Your task to perform on an android device: change notifications settings Image 0: 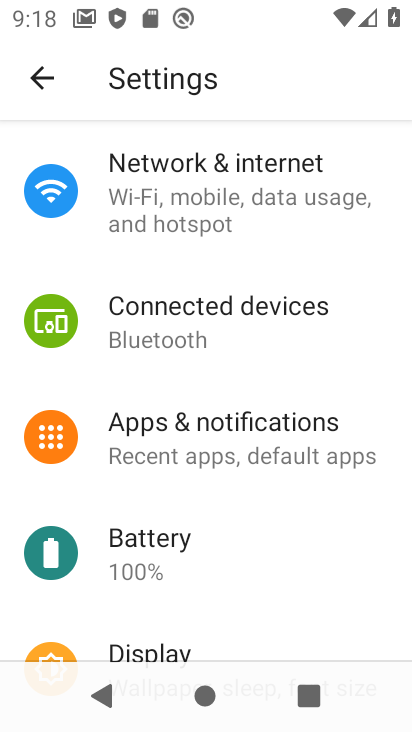
Step 0: press home button
Your task to perform on an android device: change notifications settings Image 1: 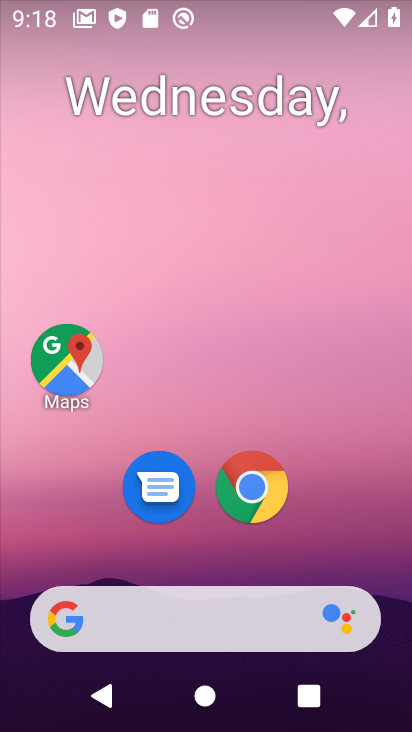
Step 1: drag from (172, 601) to (264, 98)
Your task to perform on an android device: change notifications settings Image 2: 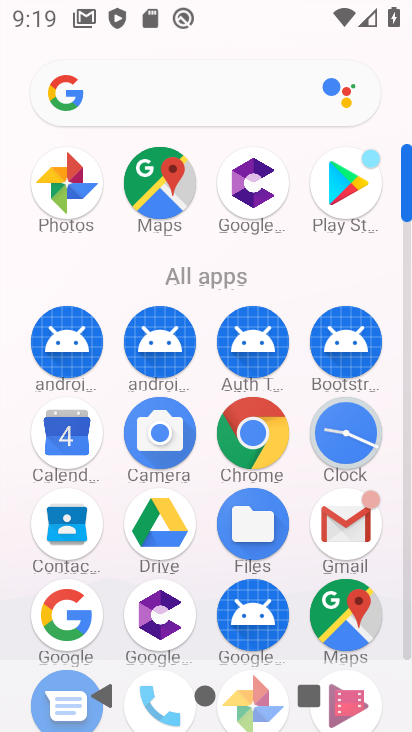
Step 2: drag from (204, 573) to (303, 190)
Your task to perform on an android device: change notifications settings Image 3: 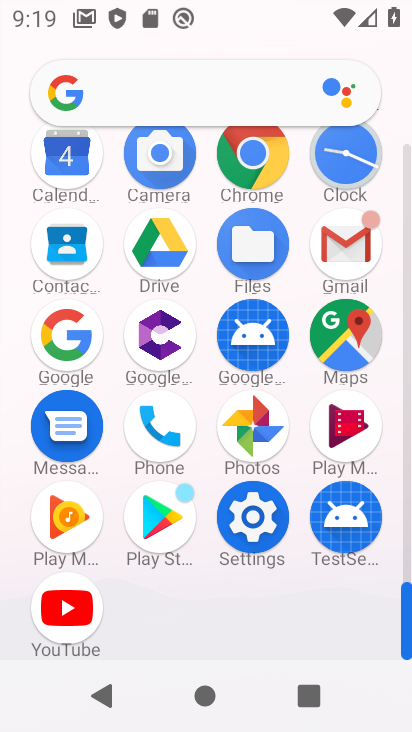
Step 3: click (254, 528)
Your task to perform on an android device: change notifications settings Image 4: 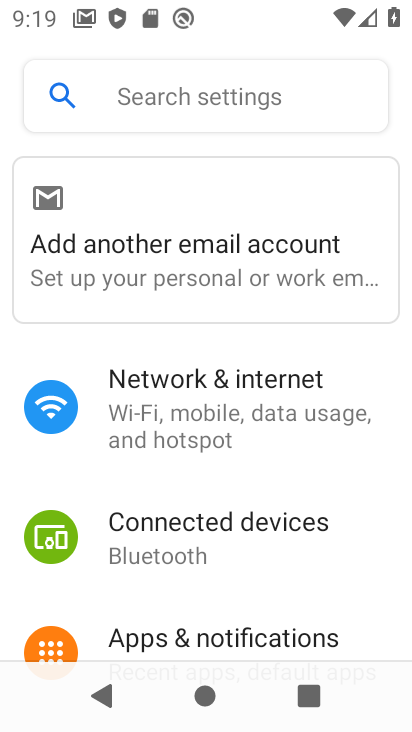
Step 4: drag from (225, 599) to (270, 343)
Your task to perform on an android device: change notifications settings Image 5: 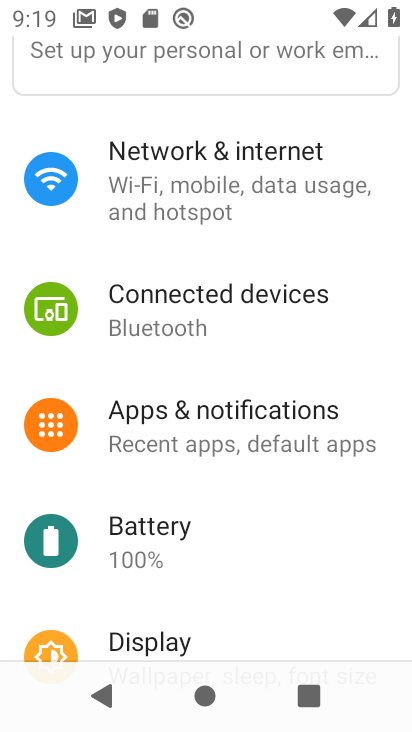
Step 5: click (239, 425)
Your task to perform on an android device: change notifications settings Image 6: 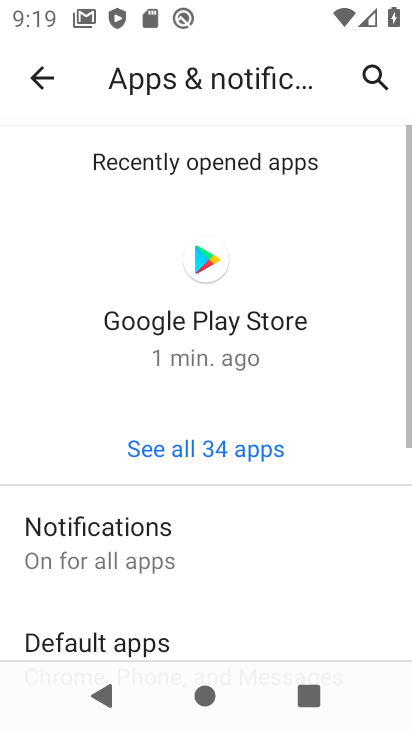
Step 6: click (133, 532)
Your task to perform on an android device: change notifications settings Image 7: 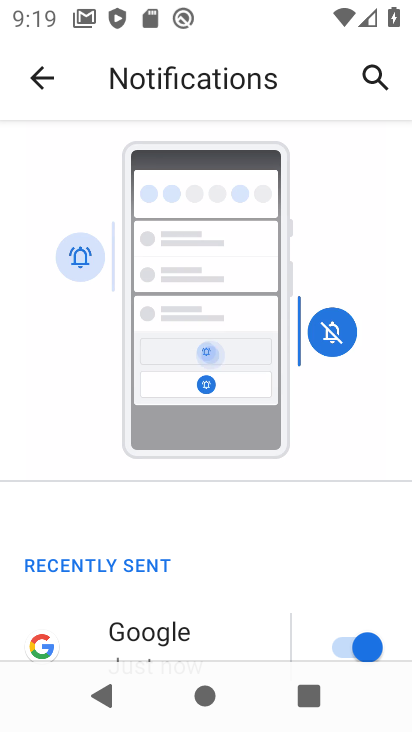
Step 7: drag from (242, 579) to (376, 153)
Your task to perform on an android device: change notifications settings Image 8: 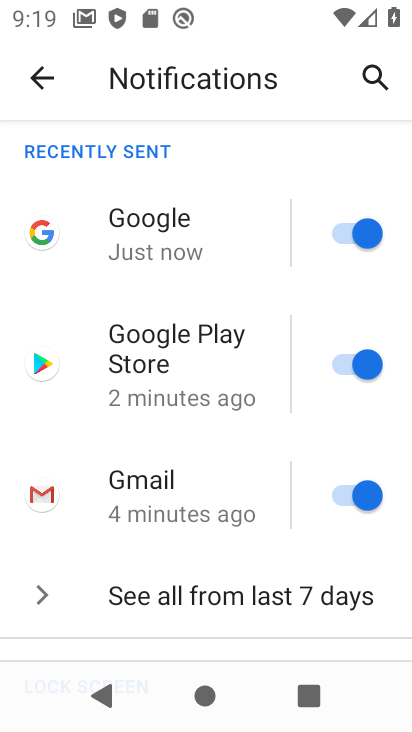
Step 8: drag from (274, 186) to (255, 519)
Your task to perform on an android device: change notifications settings Image 9: 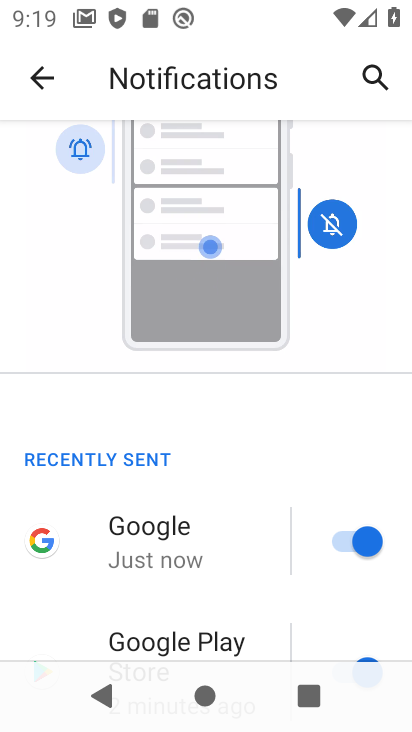
Step 9: click (342, 546)
Your task to perform on an android device: change notifications settings Image 10: 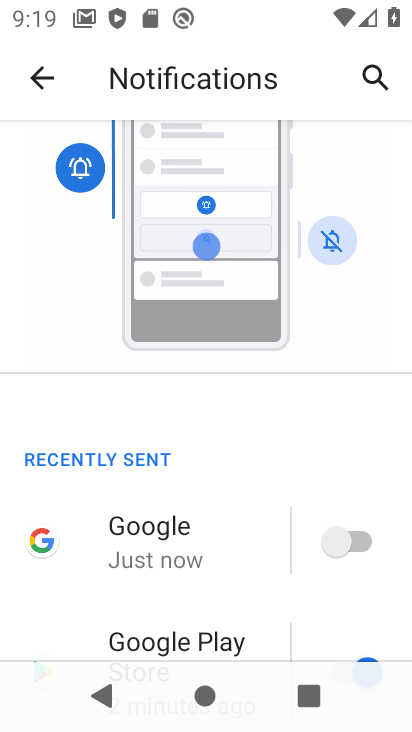
Step 10: task complete